Your task to perform on an android device: check android version Image 0: 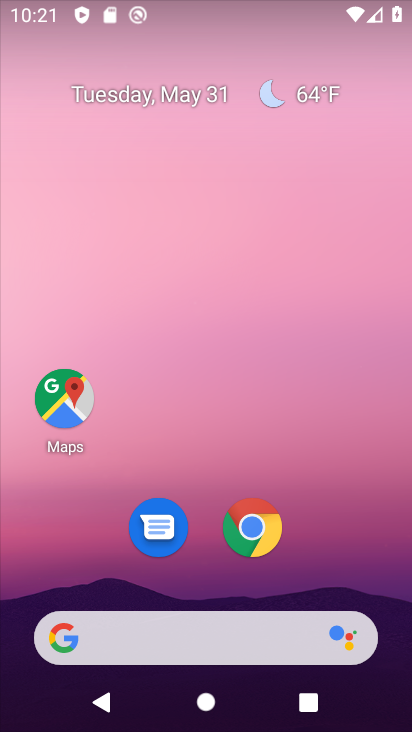
Step 0: drag from (138, 673) to (276, 21)
Your task to perform on an android device: check android version Image 1: 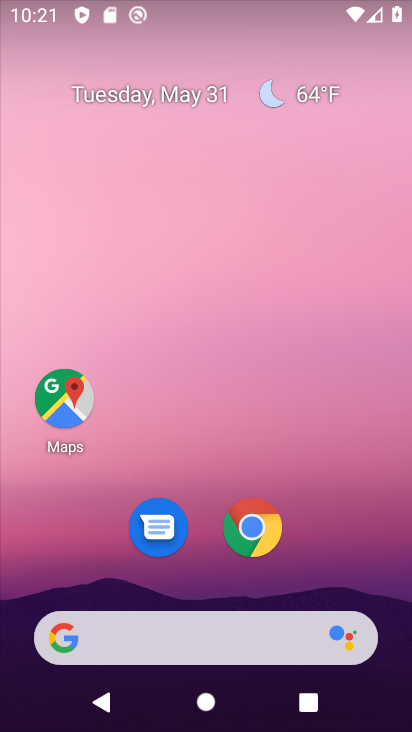
Step 1: drag from (170, 682) to (397, 1)
Your task to perform on an android device: check android version Image 2: 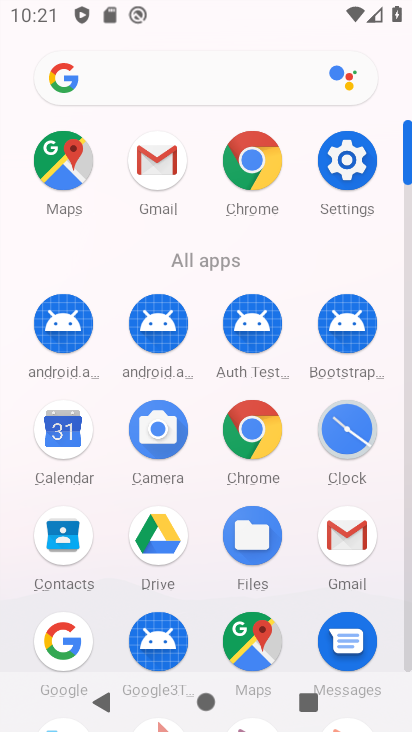
Step 2: click (346, 149)
Your task to perform on an android device: check android version Image 3: 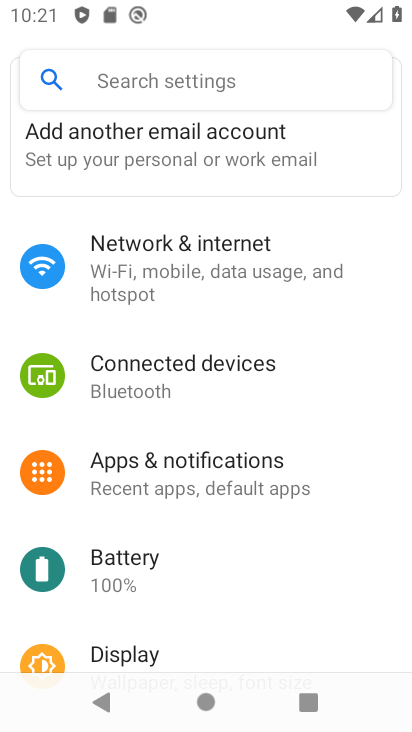
Step 3: drag from (212, 580) to (270, 0)
Your task to perform on an android device: check android version Image 4: 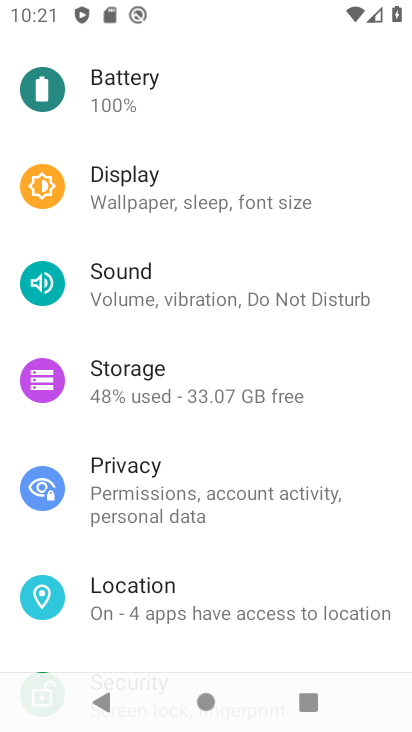
Step 4: drag from (193, 476) to (409, 30)
Your task to perform on an android device: check android version Image 5: 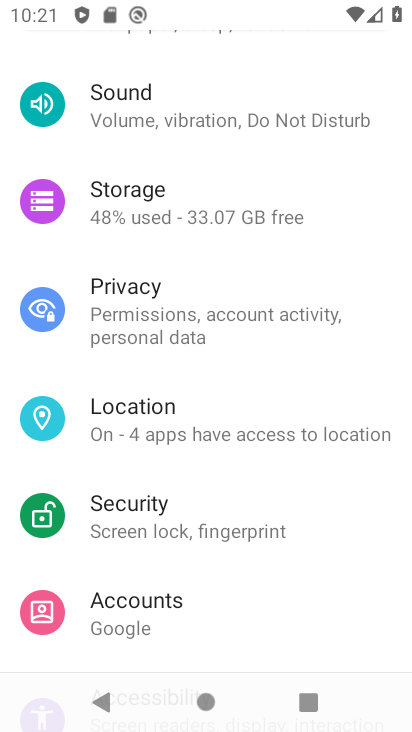
Step 5: drag from (195, 631) to (404, 36)
Your task to perform on an android device: check android version Image 6: 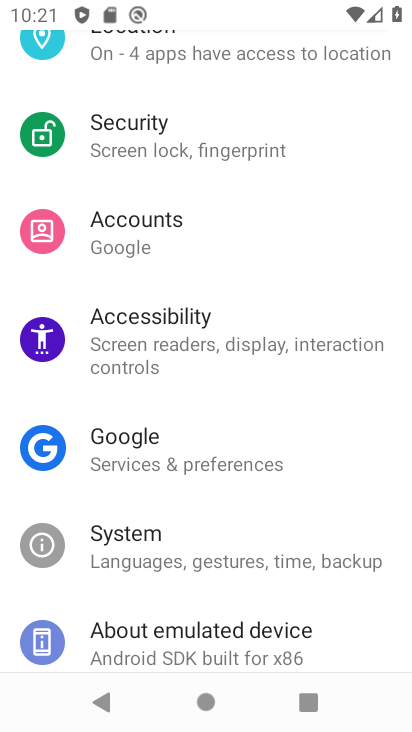
Step 6: click (222, 635)
Your task to perform on an android device: check android version Image 7: 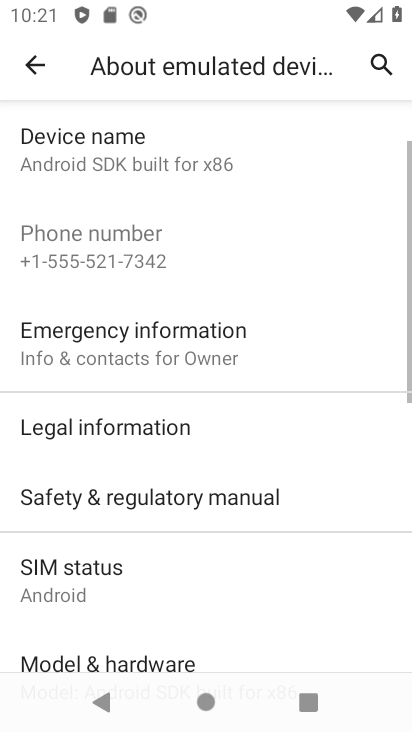
Step 7: task complete